Your task to perform on an android device: delete the emails in spam in the gmail app Image 0: 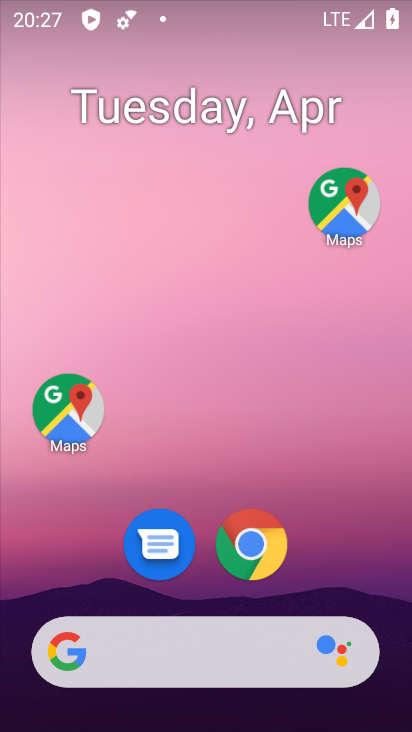
Step 0: drag from (200, 630) to (367, 155)
Your task to perform on an android device: delete the emails in spam in the gmail app Image 1: 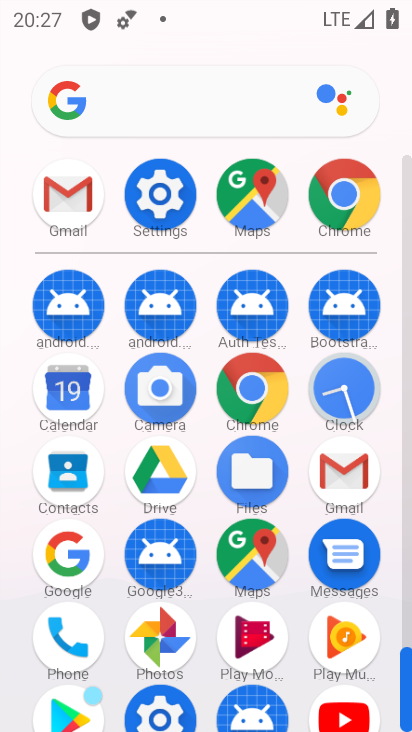
Step 1: click (59, 211)
Your task to perform on an android device: delete the emails in spam in the gmail app Image 2: 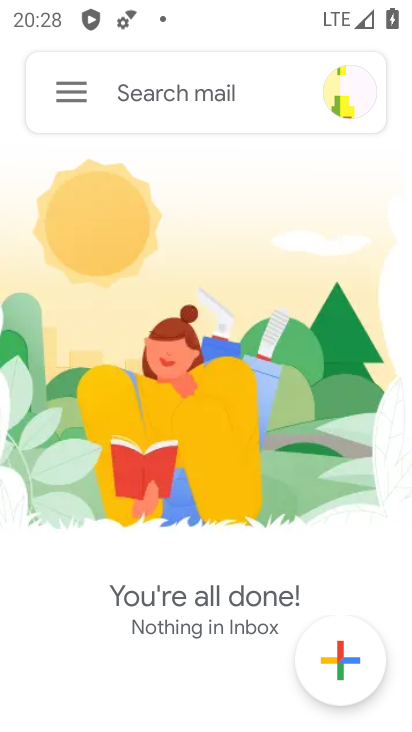
Step 2: click (78, 91)
Your task to perform on an android device: delete the emails in spam in the gmail app Image 3: 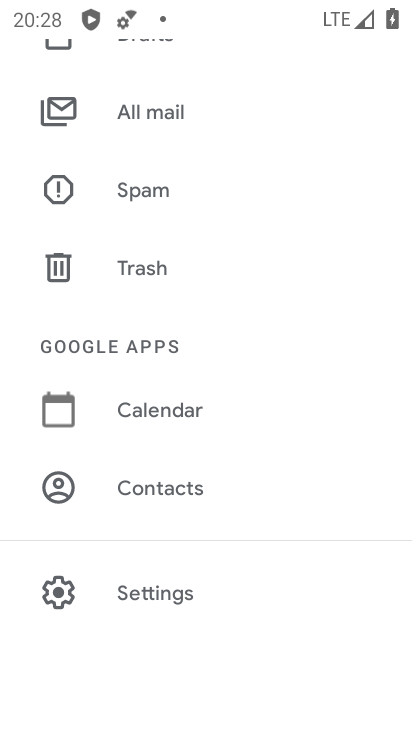
Step 3: click (149, 189)
Your task to perform on an android device: delete the emails in spam in the gmail app Image 4: 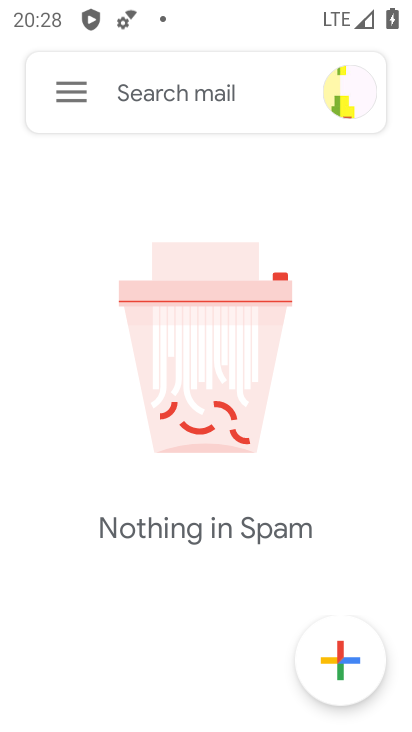
Step 4: task complete